Your task to perform on an android device: turn on javascript in the chrome app Image 0: 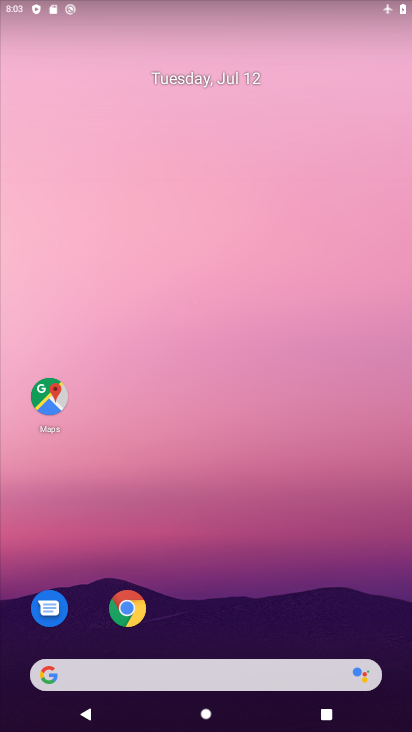
Step 0: drag from (204, 641) to (175, 100)
Your task to perform on an android device: turn on javascript in the chrome app Image 1: 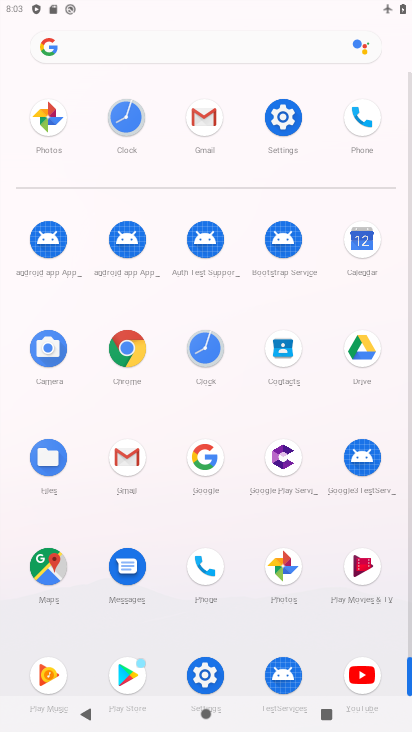
Step 1: click (134, 347)
Your task to perform on an android device: turn on javascript in the chrome app Image 2: 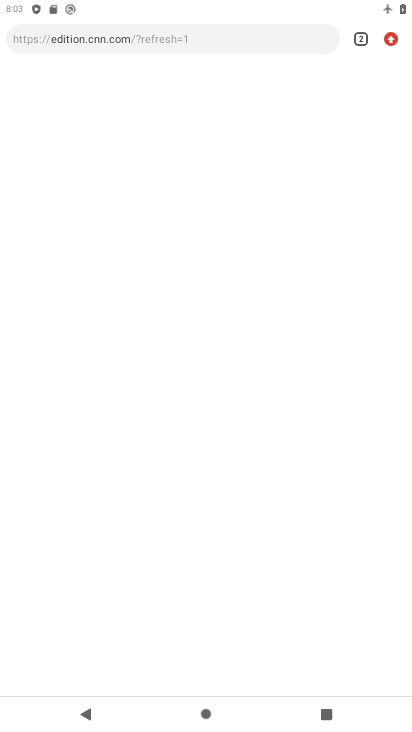
Step 2: drag from (390, 34) to (257, 475)
Your task to perform on an android device: turn on javascript in the chrome app Image 3: 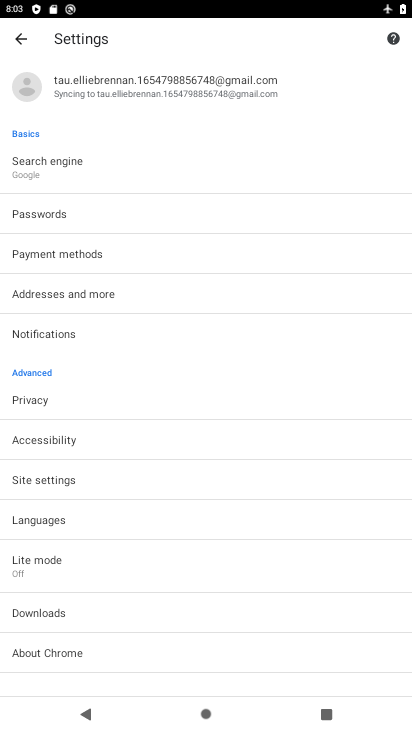
Step 3: click (51, 486)
Your task to perform on an android device: turn on javascript in the chrome app Image 4: 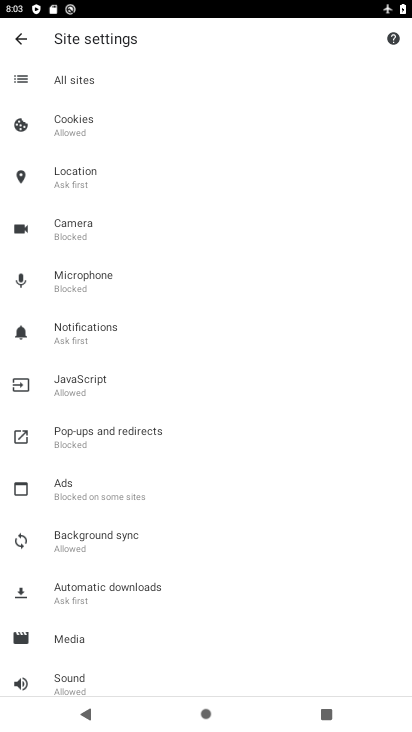
Step 4: click (81, 374)
Your task to perform on an android device: turn on javascript in the chrome app Image 5: 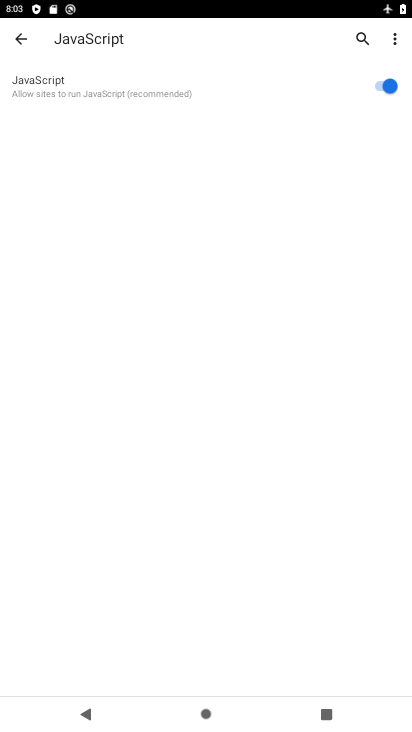
Step 5: task complete